Your task to perform on an android device: Go to wifi settings Image 0: 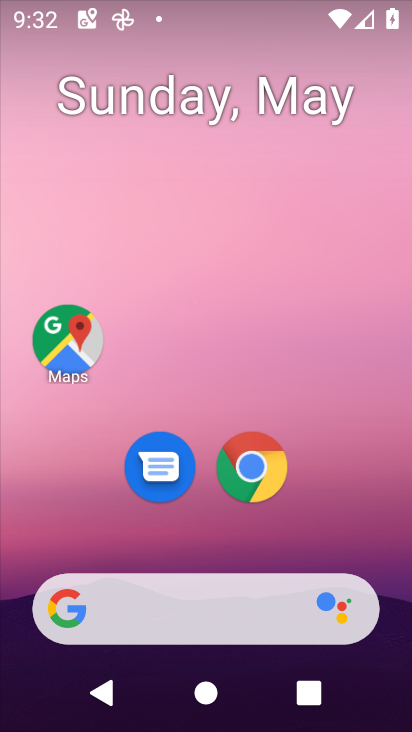
Step 0: drag from (372, 531) to (340, 104)
Your task to perform on an android device: Go to wifi settings Image 1: 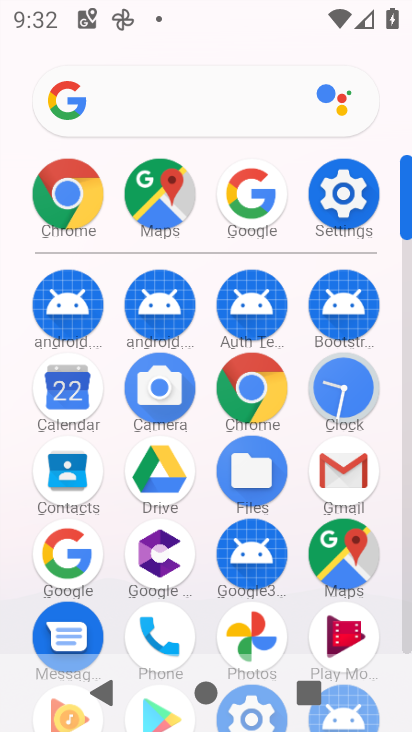
Step 1: click (357, 212)
Your task to perform on an android device: Go to wifi settings Image 2: 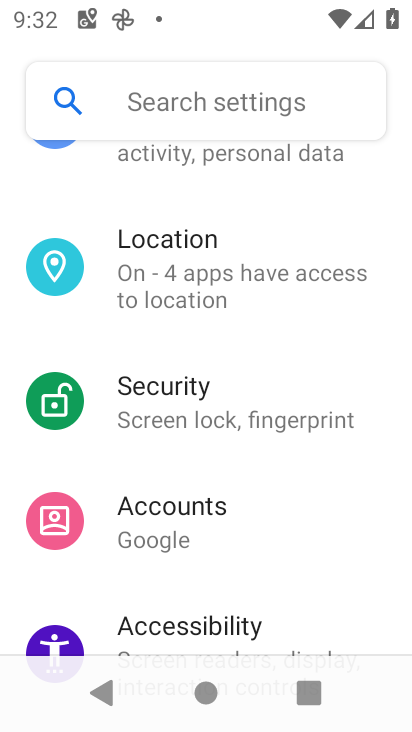
Step 2: drag from (233, 205) to (247, 541)
Your task to perform on an android device: Go to wifi settings Image 3: 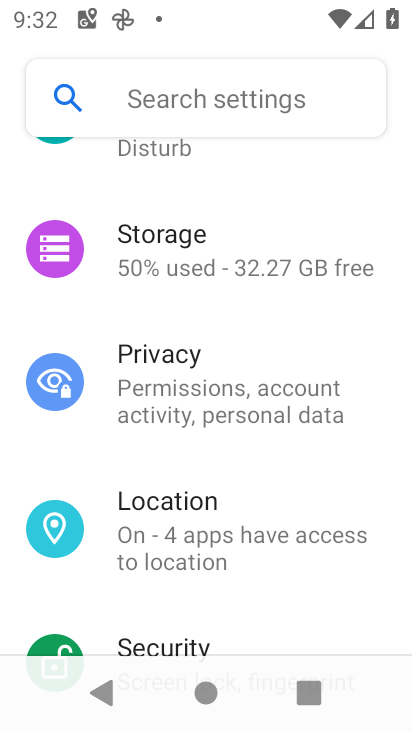
Step 3: drag from (241, 346) to (273, 603)
Your task to perform on an android device: Go to wifi settings Image 4: 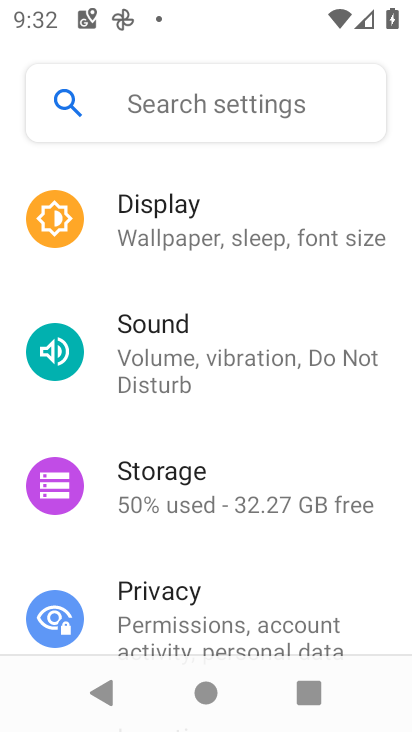
Step 4: drag from (253, 228) to (253, 584)
Your task to perform on an android device: Go to wifi settings Image 5: 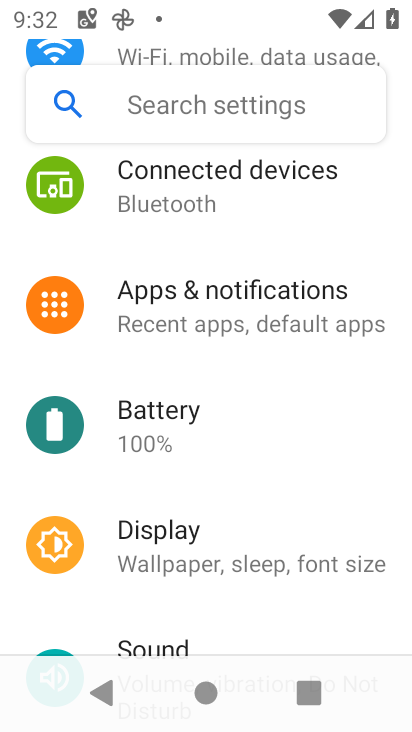
Step 5: drag from (230, 223) to (243, 557)
Your task to perform on an android device: Go to wifi settings Image 6: 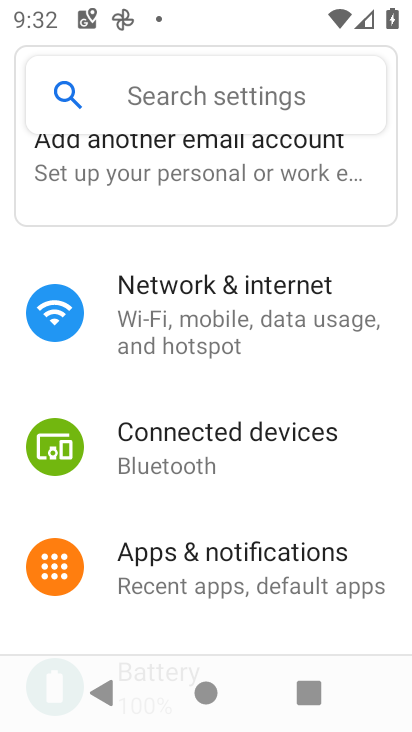
Step 6: drag from (277, 609) to (276, 227)
Your task to perform on an android device: Go to wifi settings Image 7: 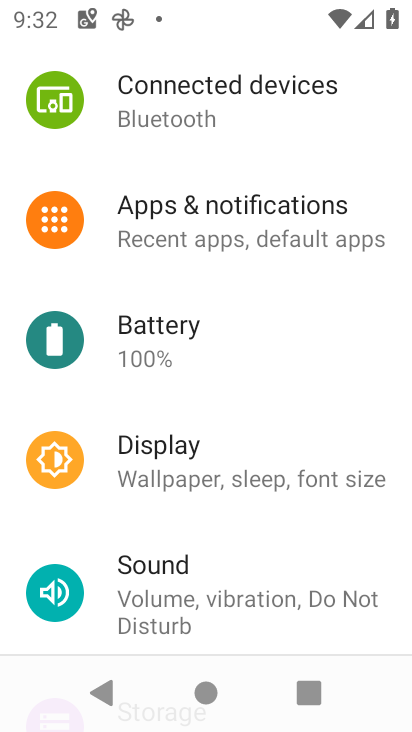
Step 7: drag from (251, 199) to (299, 591)
Your task to perform on an android device: Go to wifi settings Image 8: 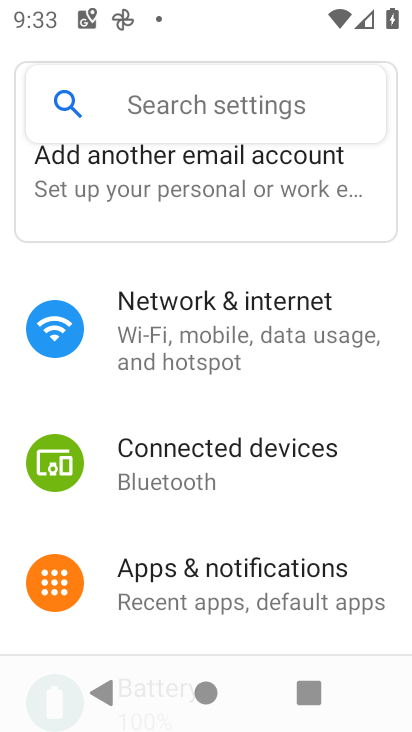
Step 8: click (267, 324)
Your task to perform on an android device: Go to wifi settings Image 9: 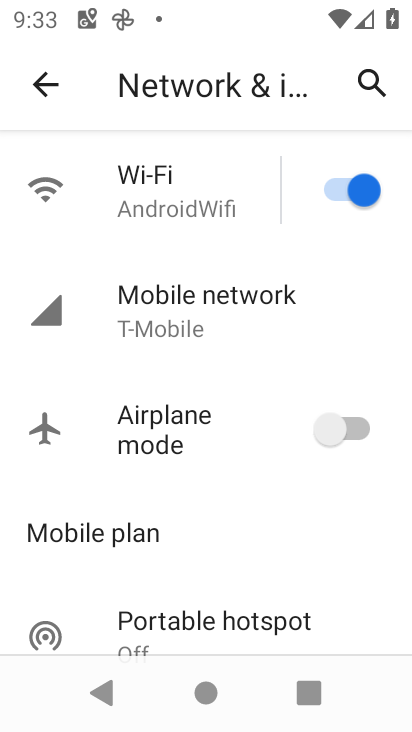
Step 9: click (204, 222)
Your task to perform on an android device: Go to wifi settings Image 10: 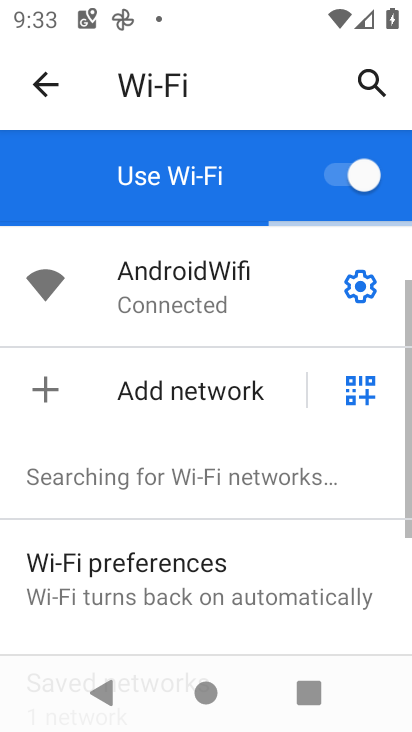
Step 10: click (373, 302)
Your task to perform on an android device: Go to wifi settings Image 11: 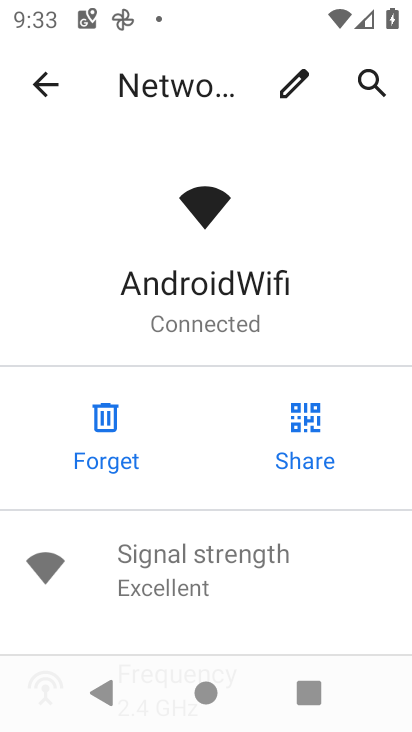
Step 11: task complete